Your task to perform on an android device: move an email to a new category in the gmail app Image 0: 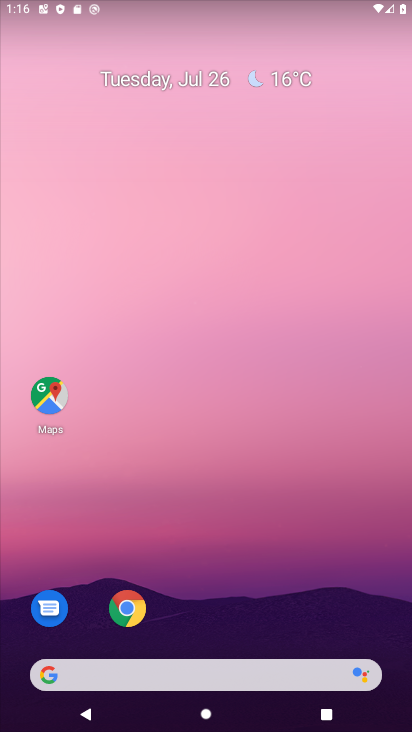
Step 0: click (286, 609)
Your task to perform on an android device: move an email to a new category in the gmail app Image 1: 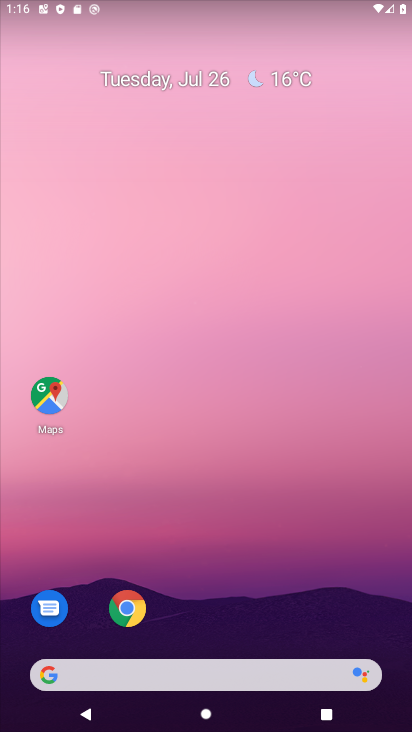
Step 1: drag from (286, 609) to (220, 285)
Your task to perform on an android device: move an email to a new category in the gmail app Image 2: 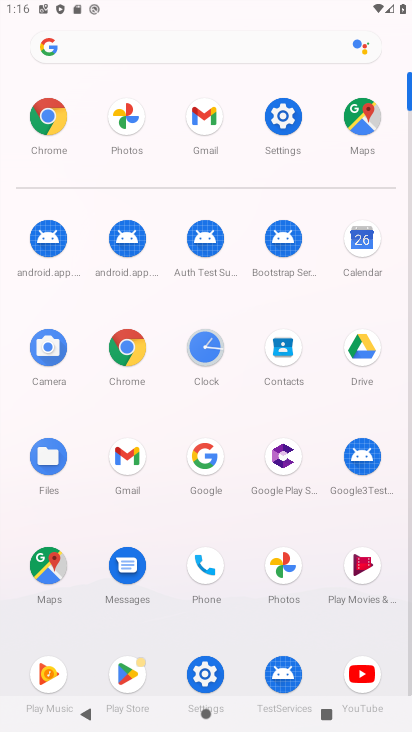
Step 2: click (146, 461)
Your task to perform on an android device: move an email to a new category in the gmail app Image 3: 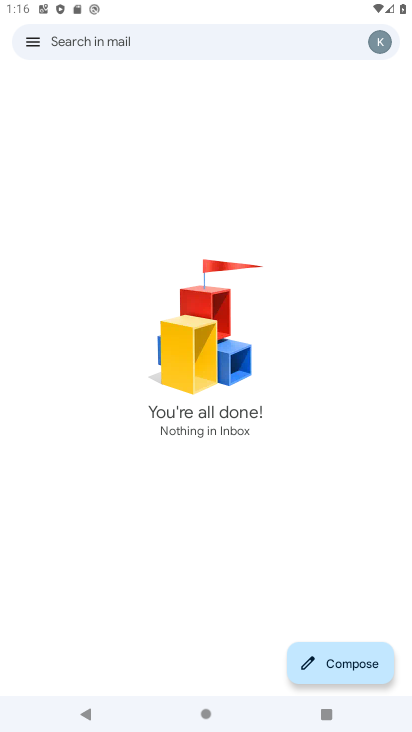
Step 3: task complete